Your task to perform on an android device: open wifi settings Image 0: 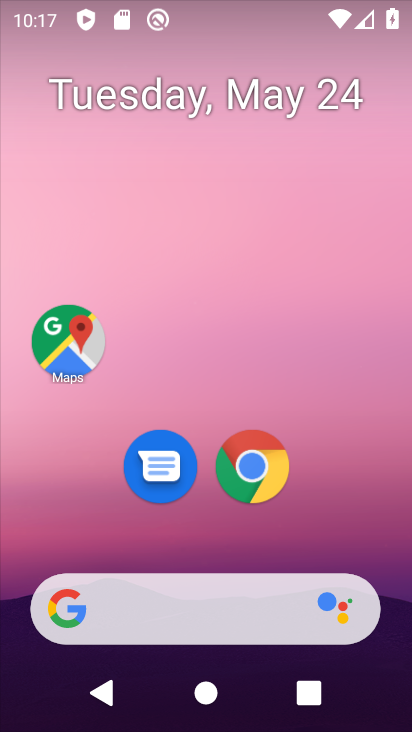
Step 0: drag from (387, 557) to (382, 197)
Your task to perform on an android device: open wifi settings Image 1: 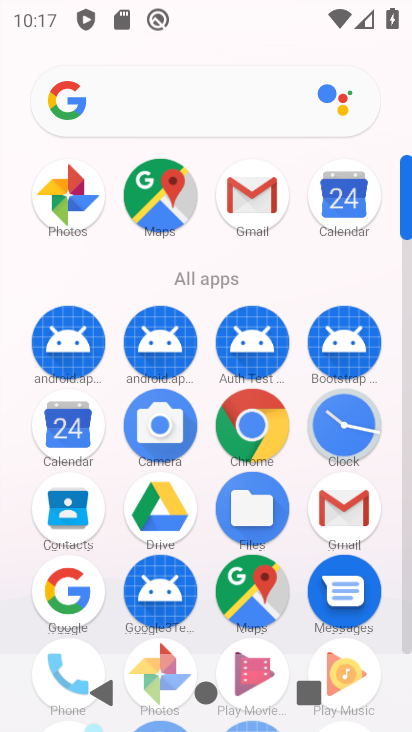
Step 1: drag from (393, 577) to (412, 284)
Your task to perform on an android device: open wifi settings Image 2: 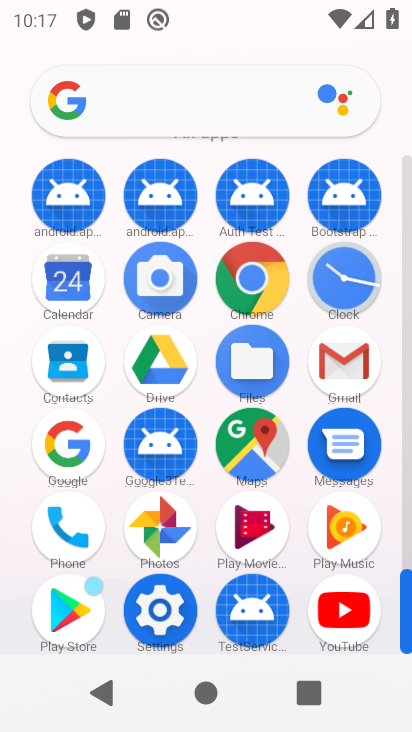
Step 2: click (172, 617)
Your task to perform on an android device: open wifi settings Image 3: 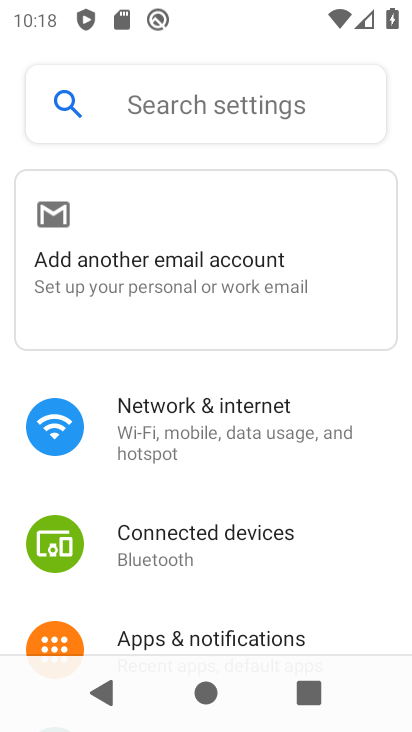
Step 3: drag from (366, 592) to (372, 462)
Your task to perform on an android device: open wifi settings Image 4: 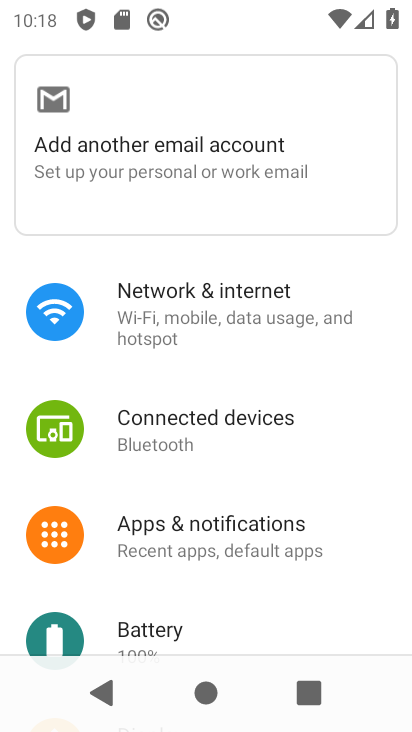
Step 4: drag from (358, 595) to (358, 434)
Your task to perform on an android device: open wifi settings Image 5: 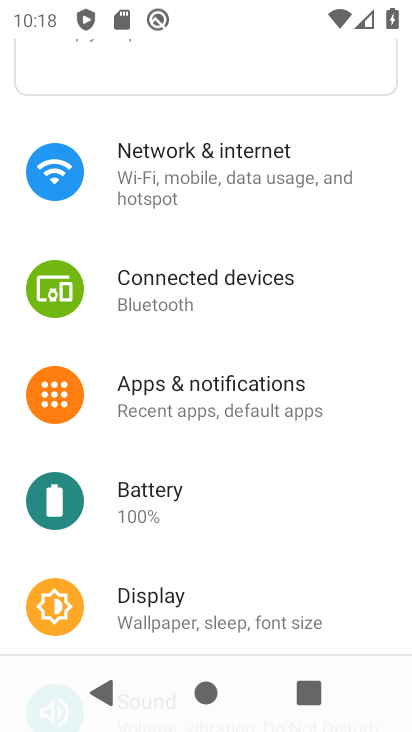
Step 5: drag from (355, 610) to (360, 448)
Your task to perform on an android device: open wifi settings Image 6: 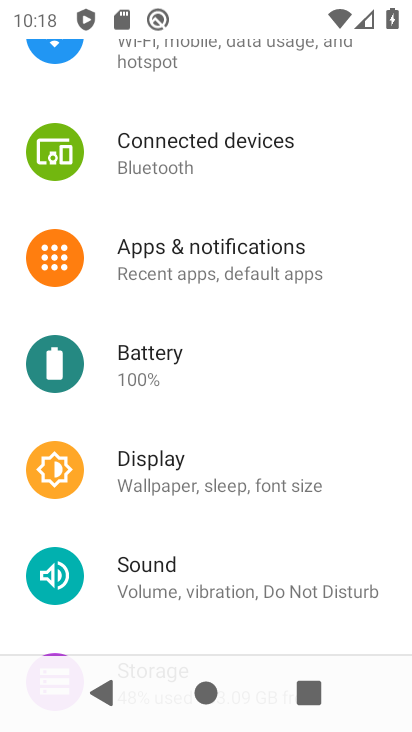
Step 6: drag from (354, 625) to (352, 427)
Your task to perform on an android device: open wifi settings Image 7: 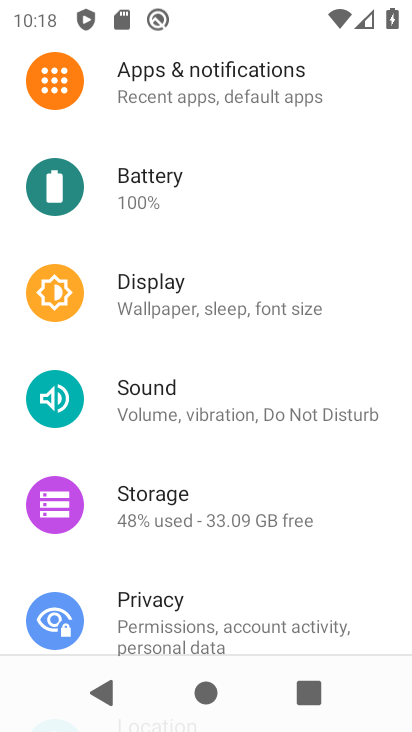
Step 7: drag from (353, 613) to (364, 464)
Your task to perform on an android device: open wifi settings Image 8: 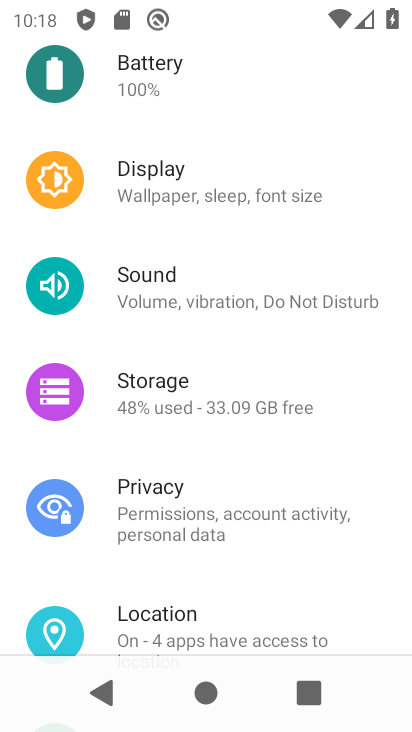
Step 8: drag from (372, 370) to (361, 464)
Your task to perform on an android device: open wifi settings Image 9: 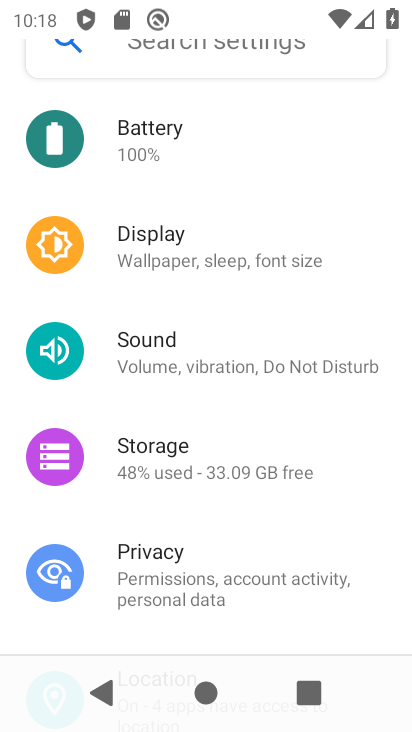
Step 9: drag from (382, 358) to (378, 481)
Your task to perform on an android device: open wifi settings Image 10: 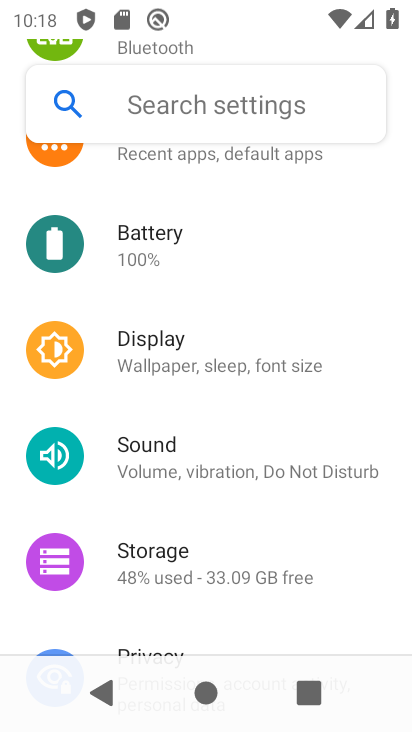
Step 10: drag from (381, 334) to (362, 477)
Your task to perform on an android device: open wifi settings Image 11: 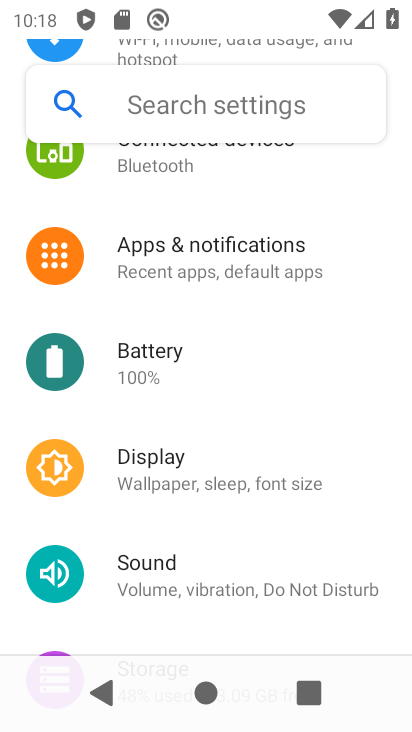
Step 11: drag from (361, 364) to (359, 473)
Your task to perform on an android device: open wifi settings Image 12: 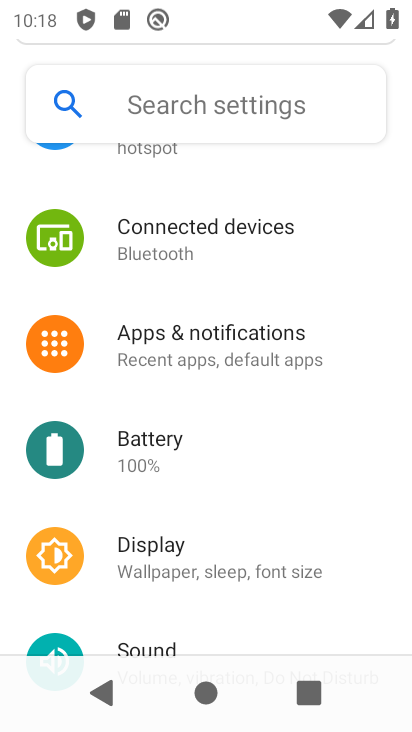
Step 12: drag from (361, 302) to (343, 455)
Your task to perform on an android device: open wifi settings Image 13: 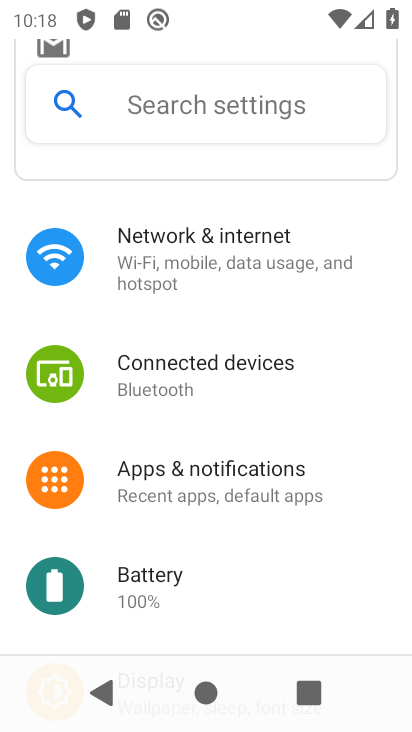
Step 13: drag from (352, 321) to (338, 455)
Your task to perform on an android device: open wifi settings Image 14: 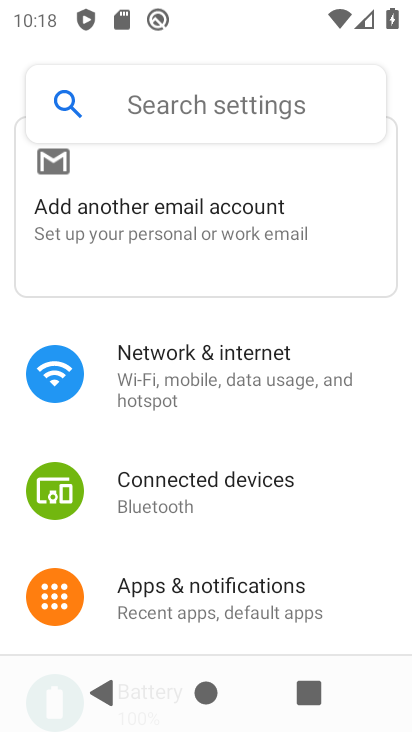
Step 14: click (241, 370)
Your task to perform on an android device: open wifi settings Image 15: 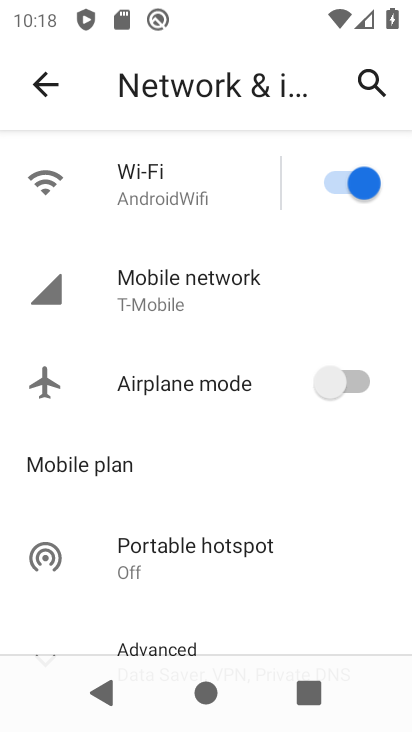
Step 15: click (180, 191)
Your task to perform on an android device: open wifi settings Image 16: 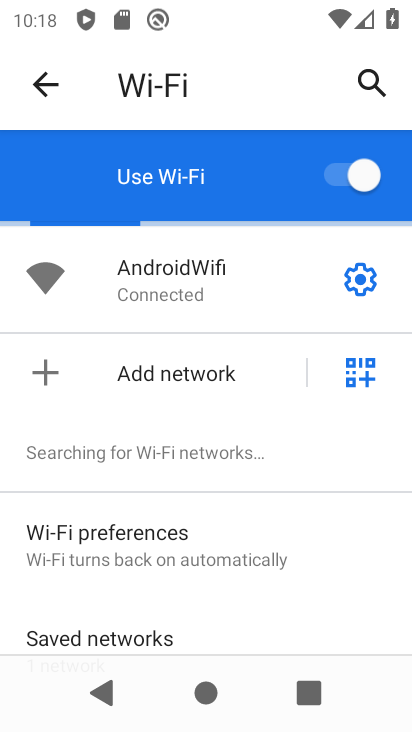
Step 16: task complete